Your task to perform on an android device: turn pop-ups on in chrome Image 0: 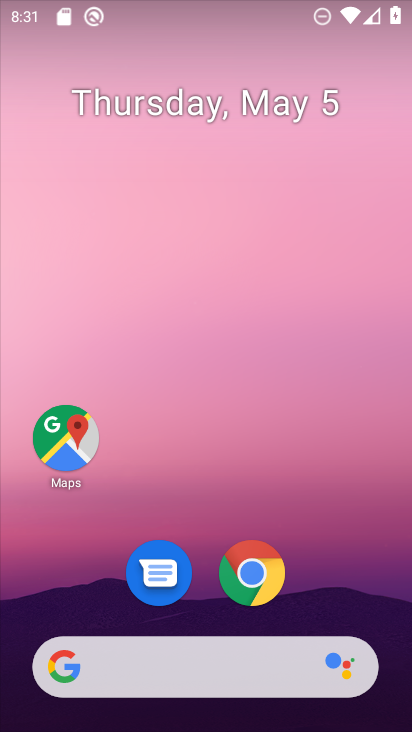
Step 0: click (257, 577)
Your task to perform on an android device: turn pop-ups on in chrome Image 1: 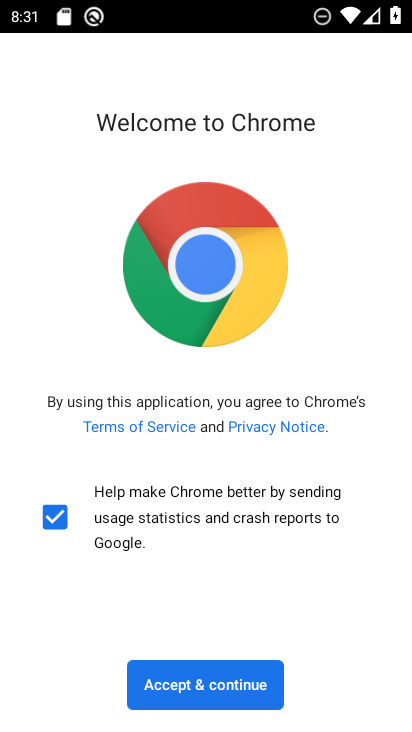
Step 1: click (176, 668)
Your task to perform on an android device: turn pop-ups on in chrome Image 2: 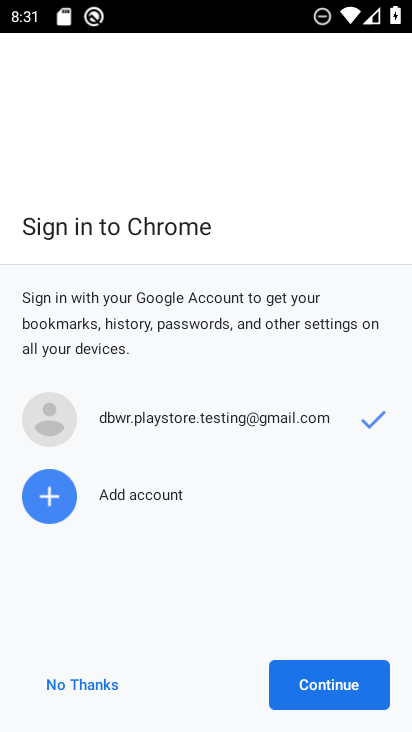
Step 2: click (303, 688)
Your task to perform on an android device: turn pop-ups on in chrome Image 3: 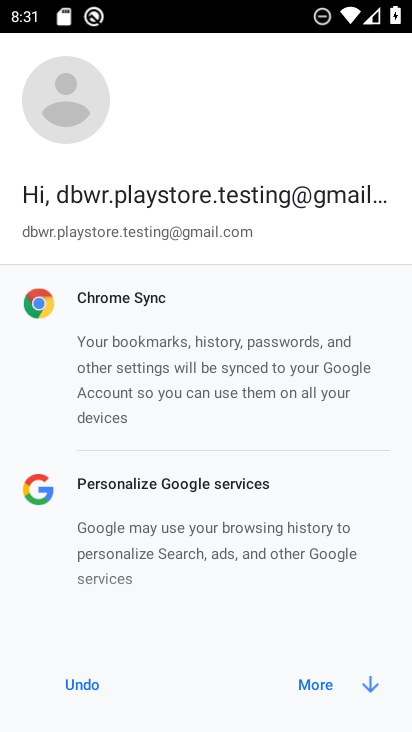
Step 3: click (303, 688)
Your task to perform on an android device: turn pop-ups on in chrome Image 4: 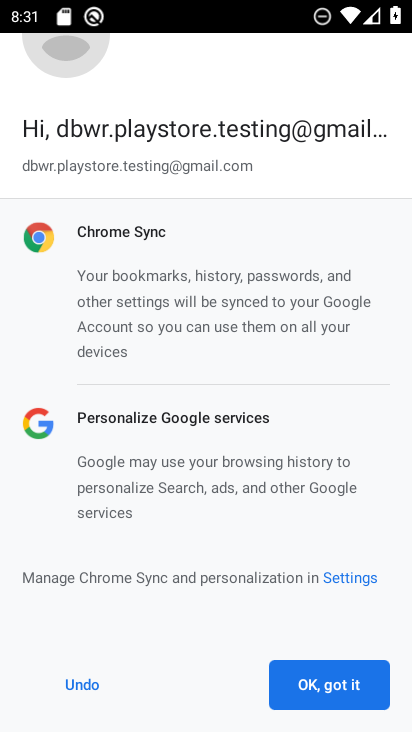
Step 4: click (303, 688)
Your task to perform on an android device: turn pop-ups on in chrome Image 5: 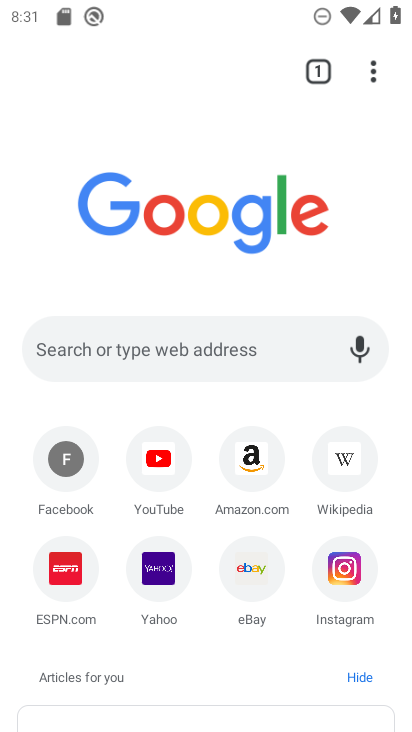
Step 5: click (372, 60)
Your task to perform on an android device: turn pop-ups on in chrome Image 6: 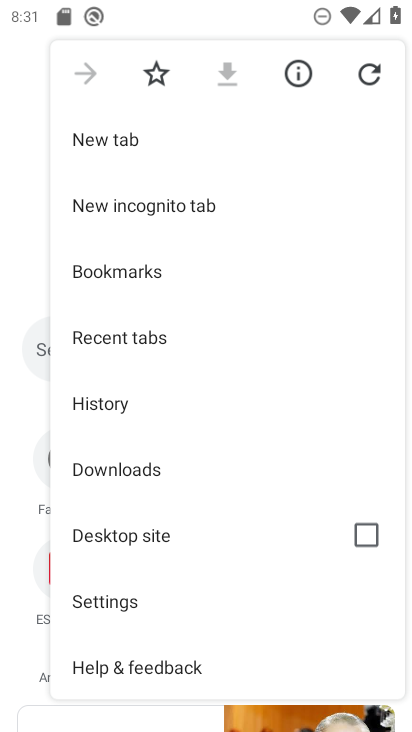
Step 6: click (113, 609)
Your task to perform on an android device: turn pop-ups on in chrome Image 7: 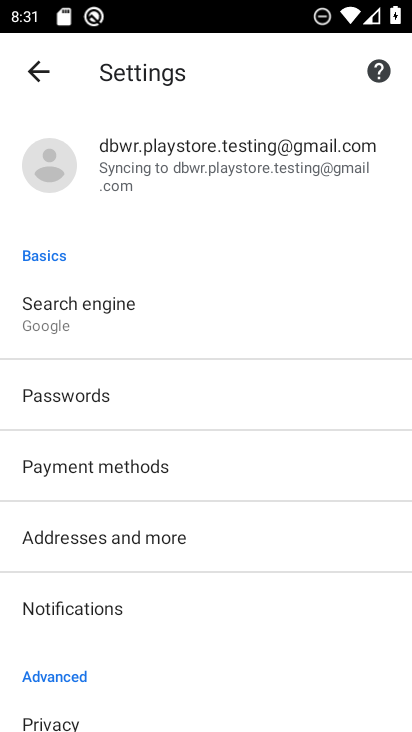
Step 7: drag from (120, 672) to (204, 328)
Your task to perform on an android device: turn pop-ups on in chrome Image 8: 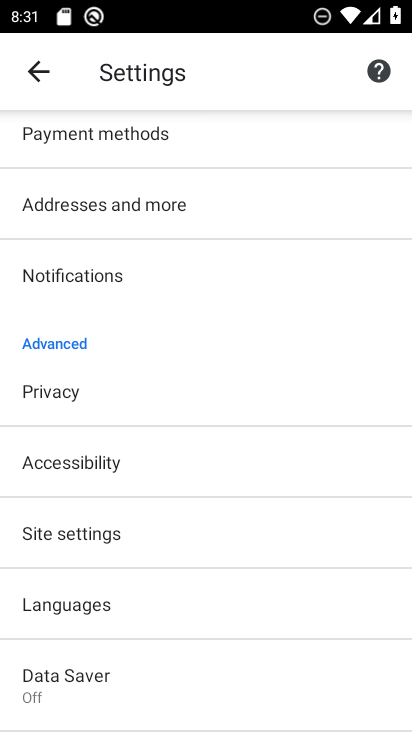
Step 8: click (132, 543)
Your task to perform on an android device: turn pop-ups on in chrome Image 9: 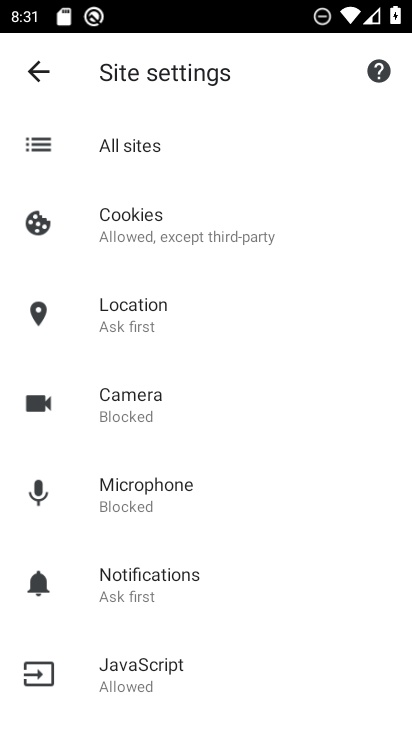
Step 9: drag from (191, 688) to (255, 160)
Your task to perform on an android device: turn pop-ups on in chrome Image 10: 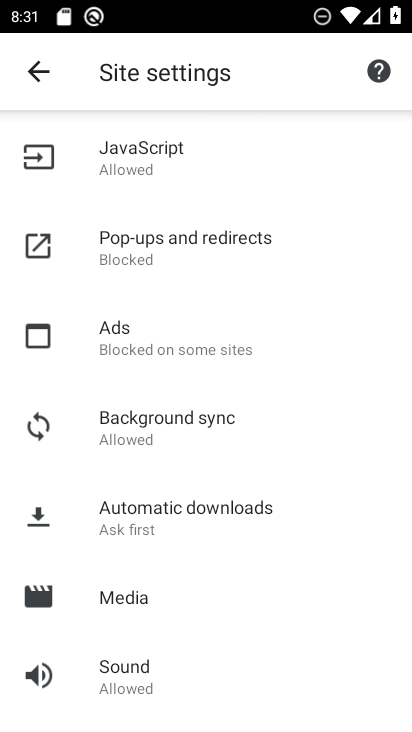
Step 10: click (224, 241)
Your task to perform on an android device: turn pop-ups on in chrome Image 11: 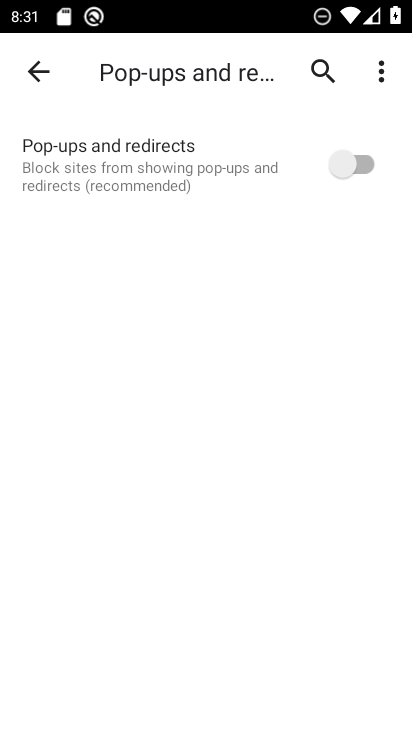
Step 11: click (361, 163)
Your task to perform on an android device: turn pop-ups on in chrome Image 12: 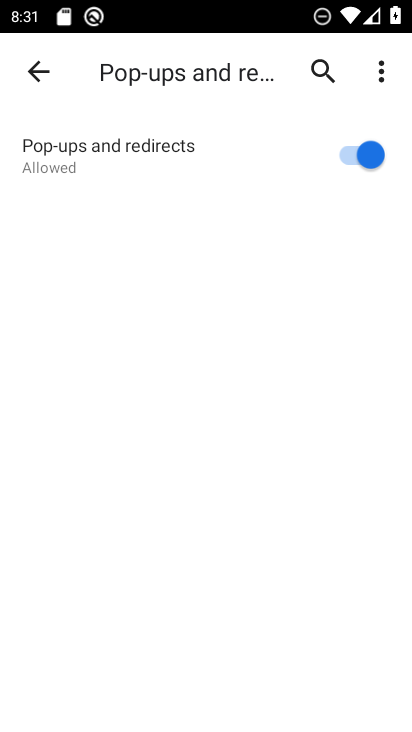
Step 12: task complete